Your task to perform on an android device: set the timer Image 0: 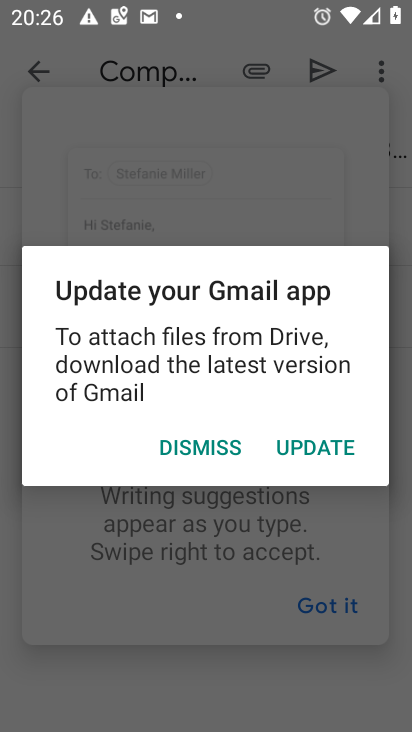
Step 0: press back button
Your task to perform on an android device: set the timer Image 1: 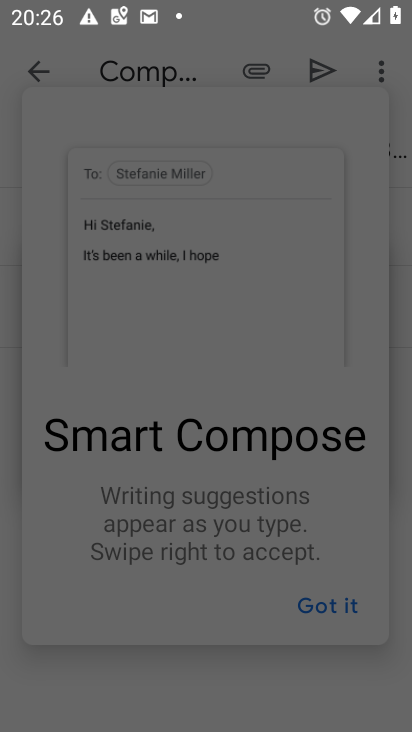
Step 1: press back button
Your task to perform on an android device: set the timer Image 2: 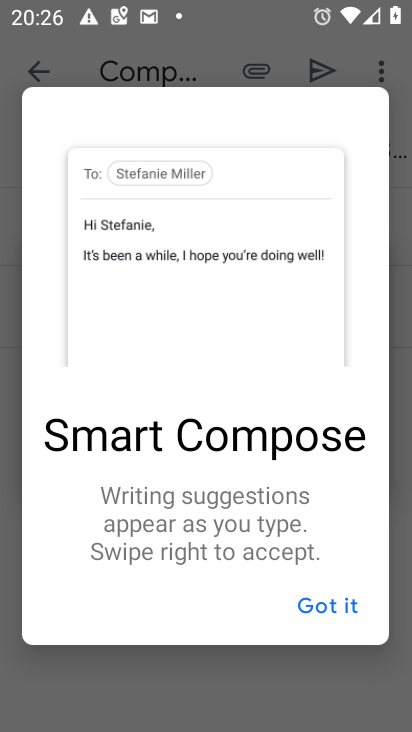
Step 2: press back button
Your task to perform on an android device: set the timer Image 3: 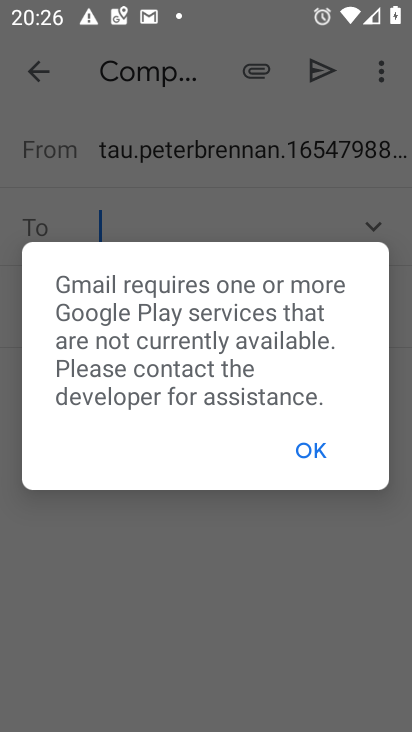
Step 3: press home button
Your task to perform on an android device: set the timer Image 4: 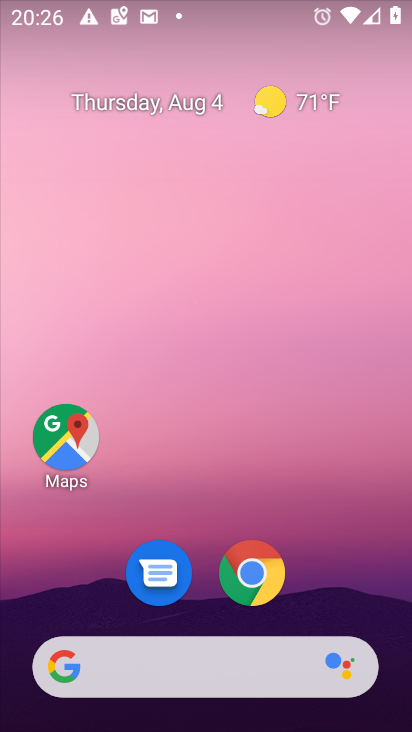
Step 4: drag from (189, 648) to (212, 150)
Your task to perform on an android device: set the timer Image 5: 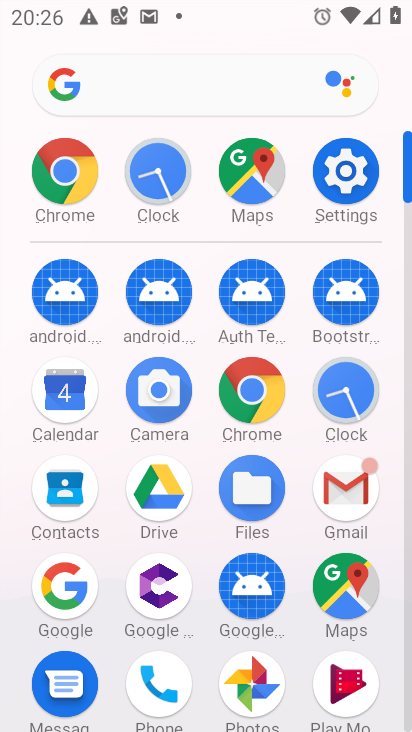
Step 5: click (332, 395)
Your task to perform on an android device: set the timer Image 6: 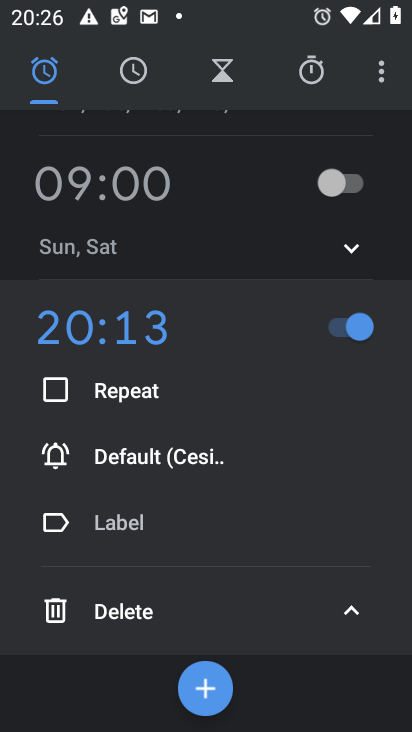
Step 6: click (223, 81)
Your task to perform on an android device: set the timer Image 7: 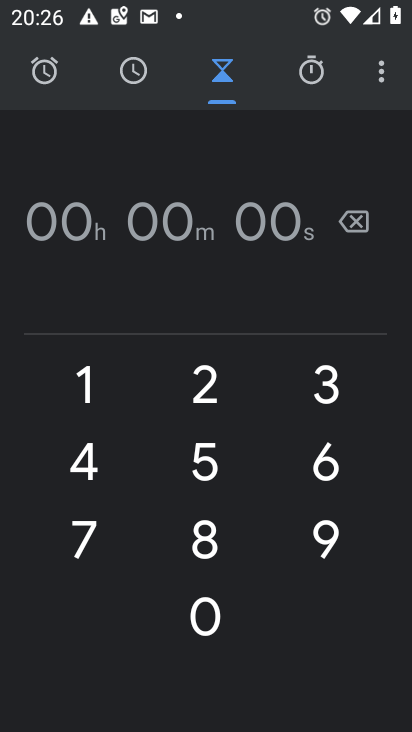
Step 7: click (99, 447)
Your task to perform on an android device: set the timer Image 8: 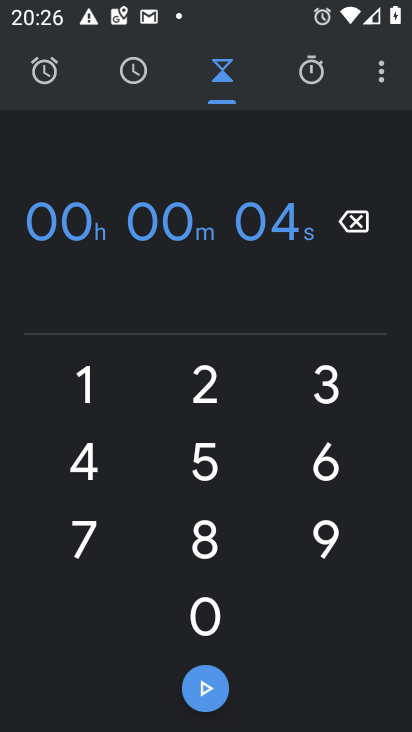
Step 8: click (196, 447)
Your task to perform on an android device: set the timer Image 9: 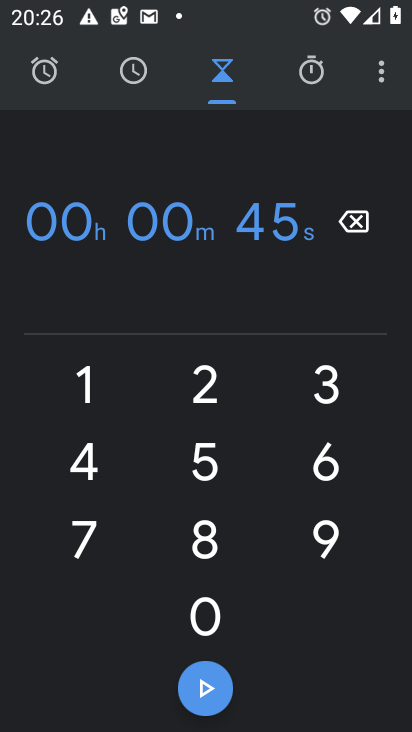
Step 9: click (204, 575)
Your task to perform on an android device: set the timer Image 10: 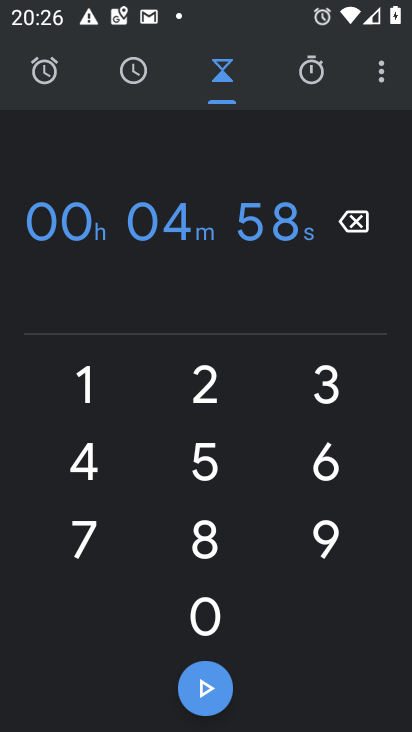
Step 10: click (99, 548)
Your task to perform on an android device: set the timer Image 11: 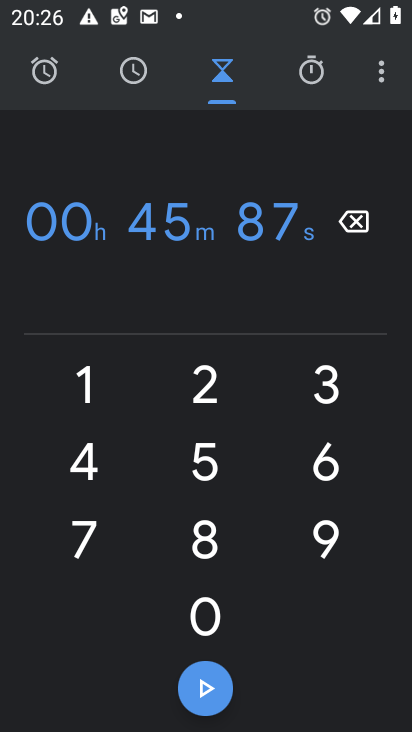
Step 11: click (211, 707)
Your task to perform on an android device: set the timer Image 12: 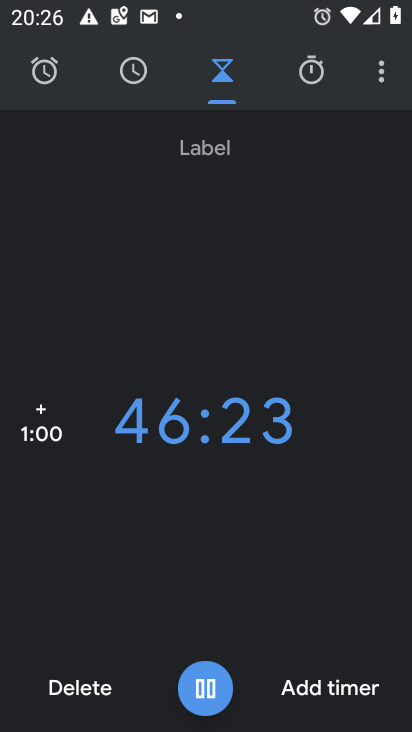
Step 12: task complete